Your task to perform on an android device: Open Youtube and go to "Your channel" Image 0: 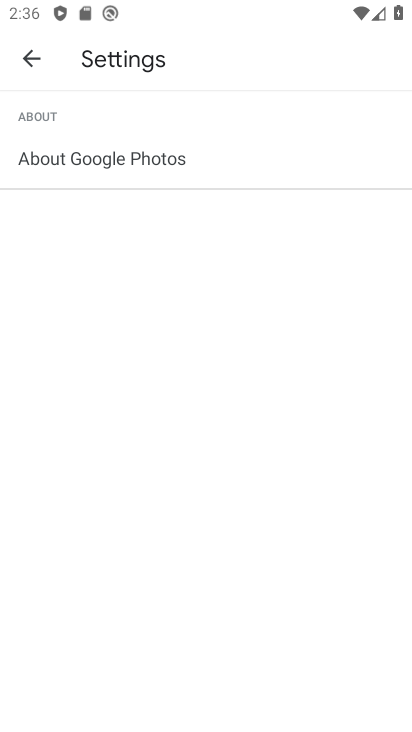
Step 0: press home button
Your task to perform on an android device: Open Youtube and go to "Your channel" Image 1: 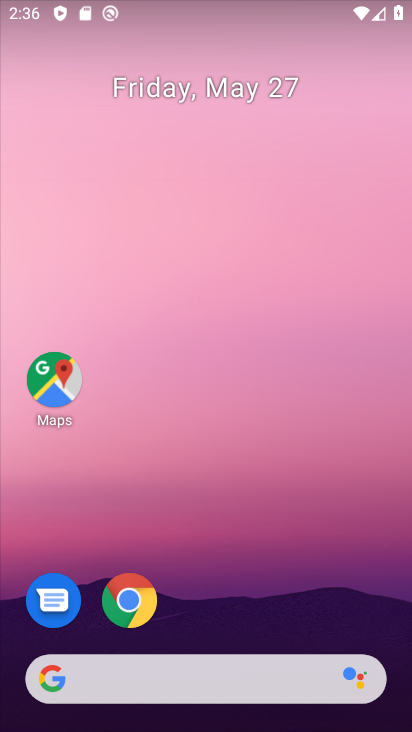
Step 1: drag from (352, 616) to (348, 260)
Your task to perform on an android device: Open Youtube and go to "Your channel" Image 2: 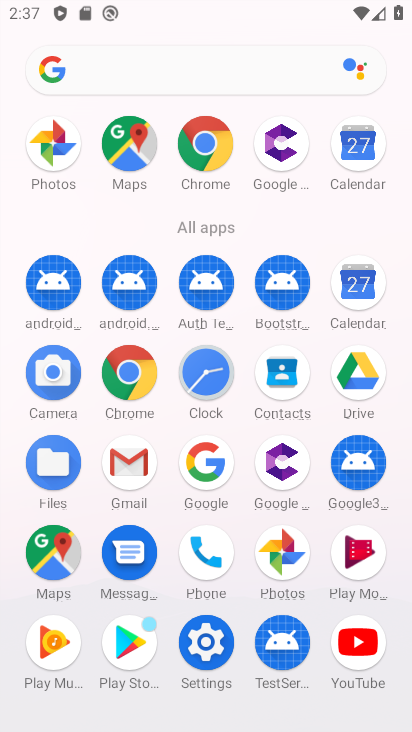
Step 2: drag from (317, 648) to (364, 634)
Your task to perform on an android device: Open Youtube and go to "Your channel" Image 3: 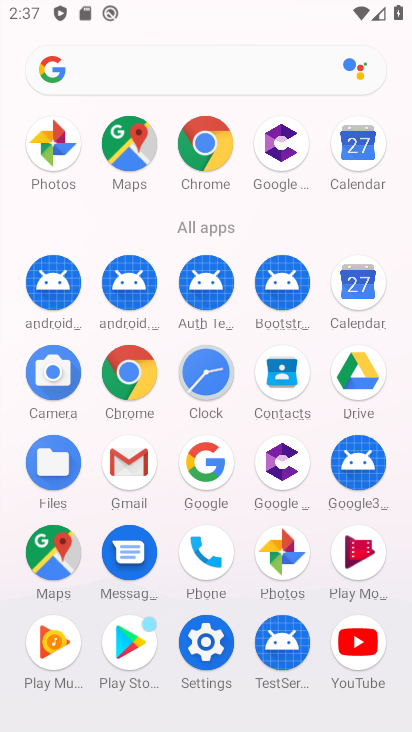
Step 3: click (364, 633)
Your task to perform on an android device: Open Youtube and go to "Your channel" Image 4: 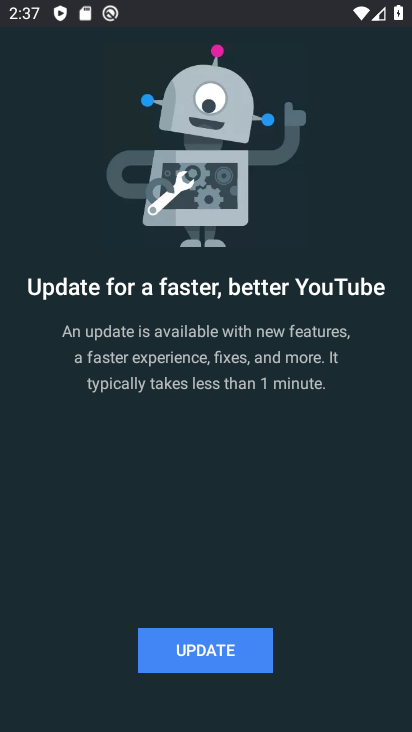
Step 4: click (251, 651)
Your task to perform on an android device: Open Youtube and go to "Your channel" Image 5: 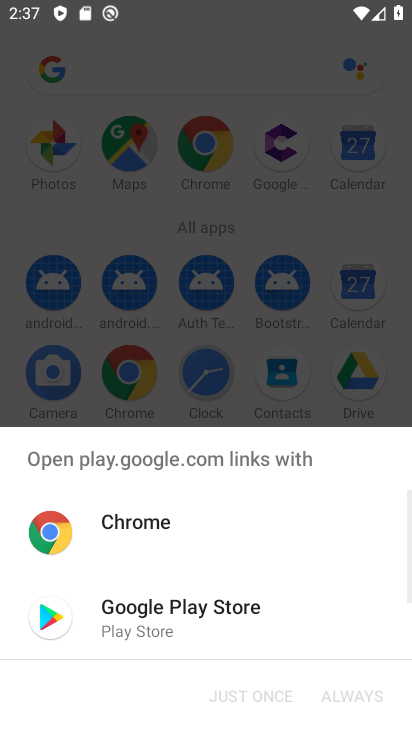
Step 5: click (370, 651)
Your task to perform on an android device: Open Youtube and go to "Your channel" Image 6: 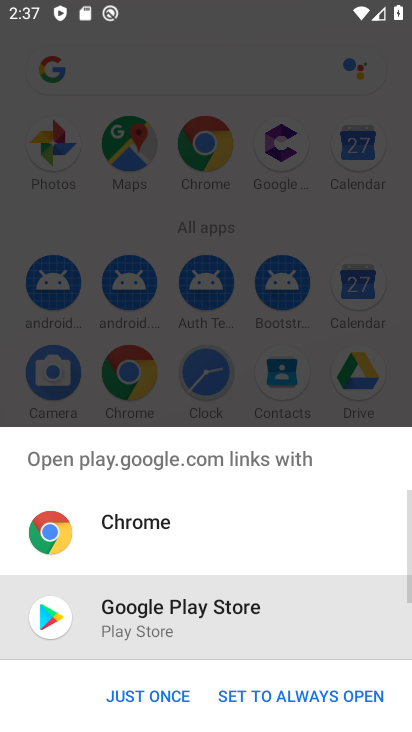
Step 6: click (153, 691)
Your task to perform on an android device: Open Youtube and go to "Your channel" Image 7: 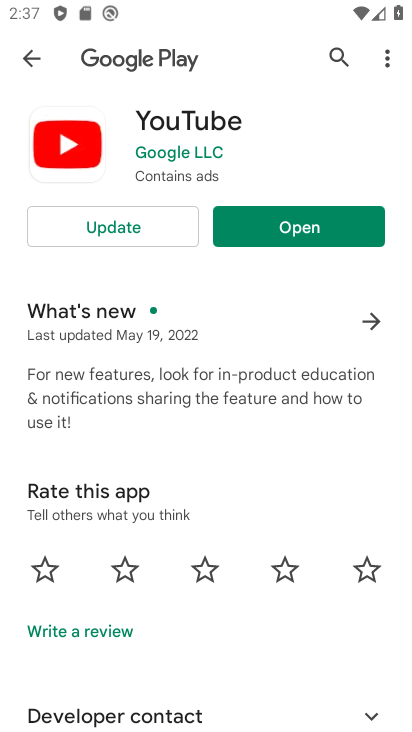
Step 7: click (141, 221)
Your task to perform on an android device: Open Youtube and go to "Your channel" Image 8: 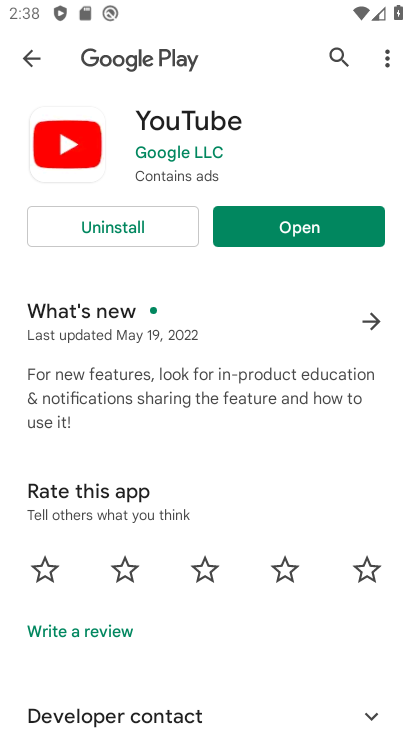
Step 8: click (279, 213)
Your task to perform on an android device: Open Youtube and go to "Your channel" Image 9: 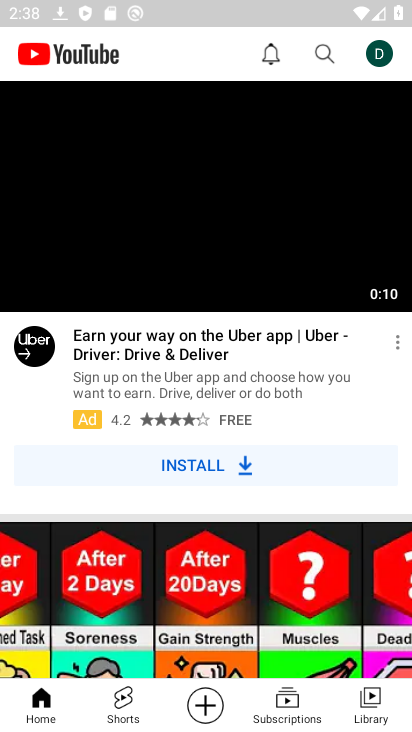
Step 9: click (367, 692)
Your task to perform on an android device: Open Youtube and go to "Your channel" Image 10: 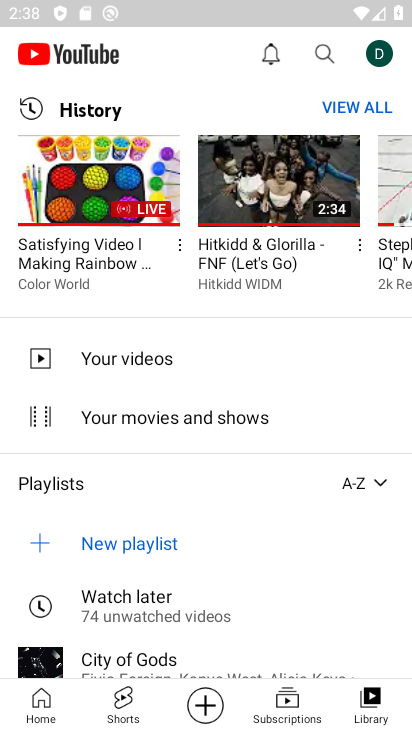
Step 10: drag from (268, 654) to (243, 518)
Your task to perform on an android device: Open Youtube and go to "Your channel" Image 11: 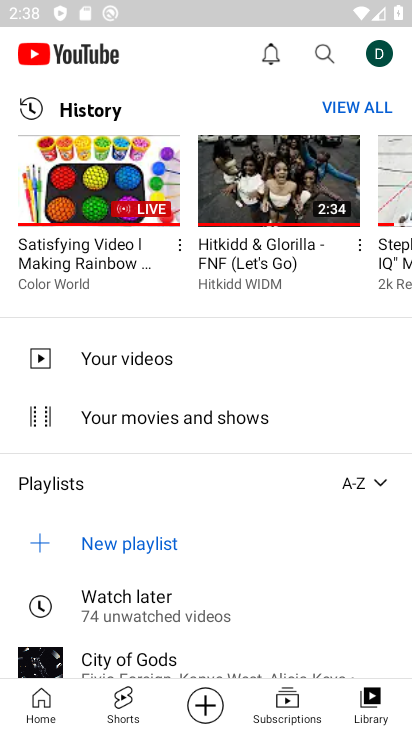
Step 11: click (367, 51)
Your task to perform on an android device: Open Youtube and go to "Your channel" Image 12: 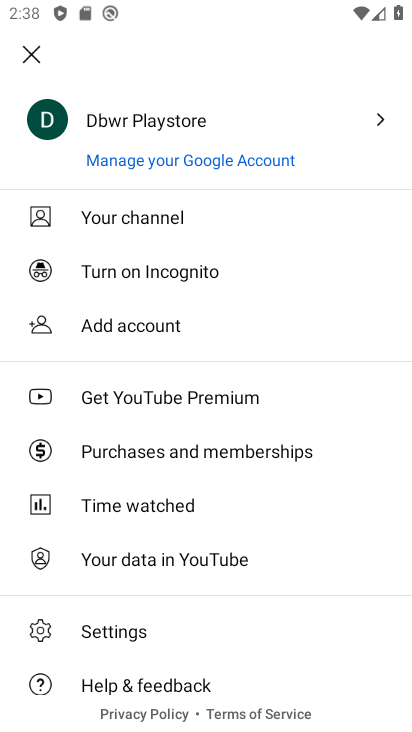
Step 12: click (173, 211)
Your task to perform on an android device: Open Youtube and go to "Your channel" Image 13: 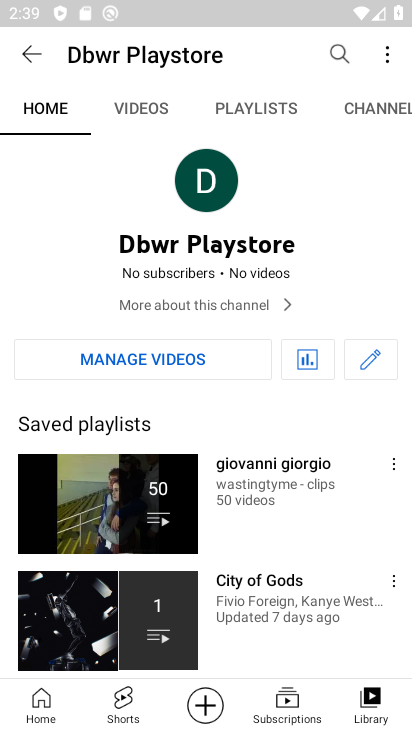
Step 13: task complete